Your task to perform on an android device: Open Android settings Image 0: 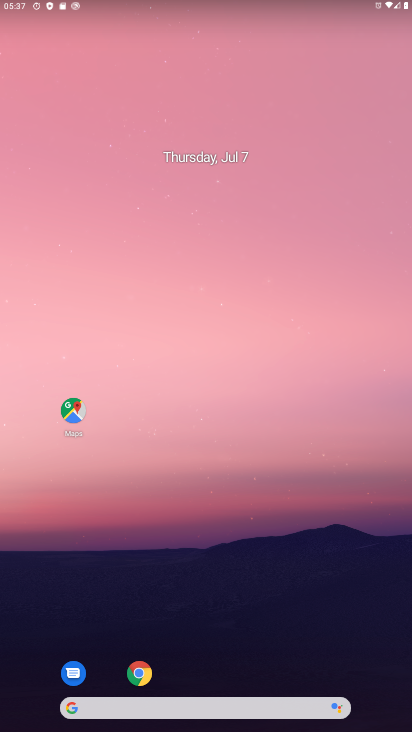
Step 0: drag from (239, 685) to (245, 33)
Your task to perform on an android device: Open Android settings Image 1: 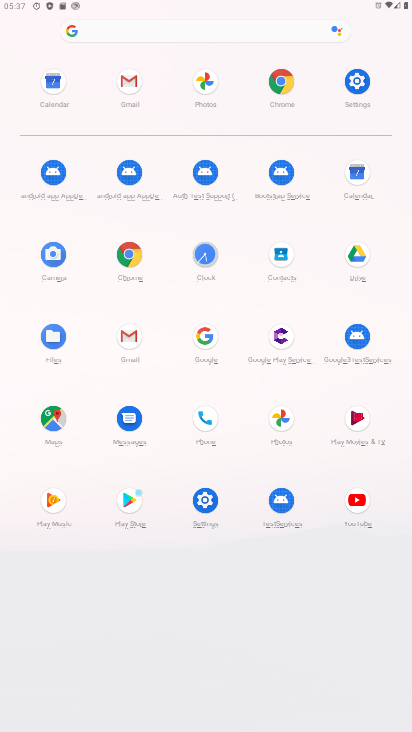
Step 1: click (367, 79)
Your task to perform on an android device: Open Android settings Image 2: 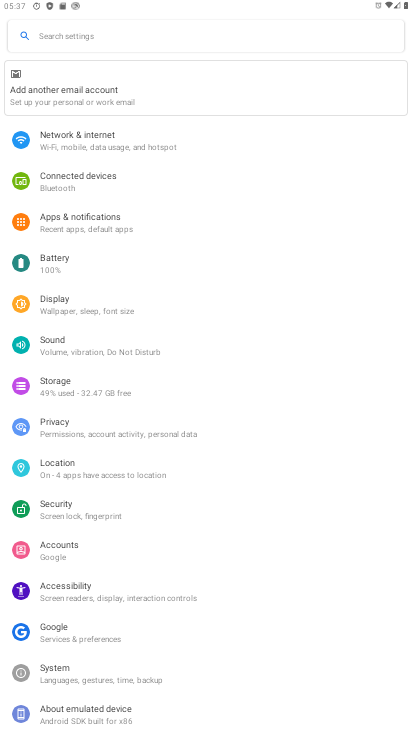
Step 2: click (138, 716)
Your task to perform on an android device: Open Android settings Image 3: 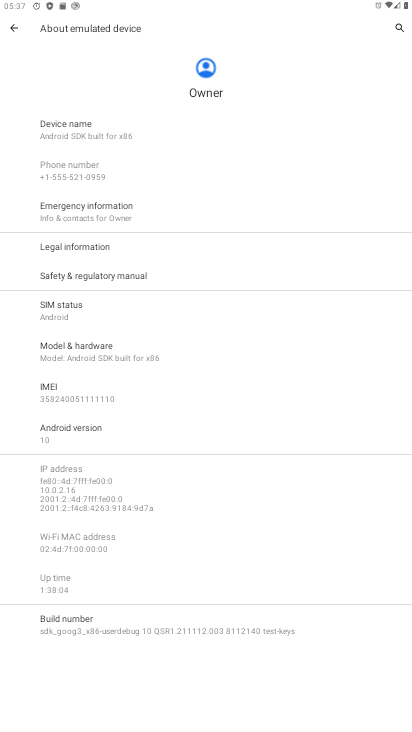
Step 3: click (86, 427)
Your task to perform on an android device: Open Android settings Image 4: 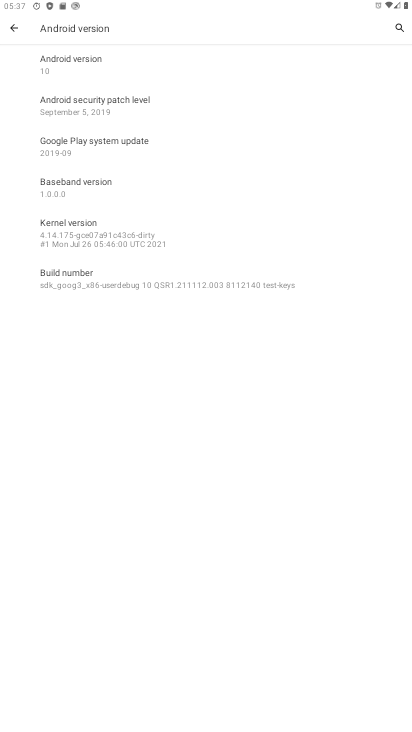
Step 4: task complete